Your task to perform on an android device: see creations saved in the google photos Image 0: 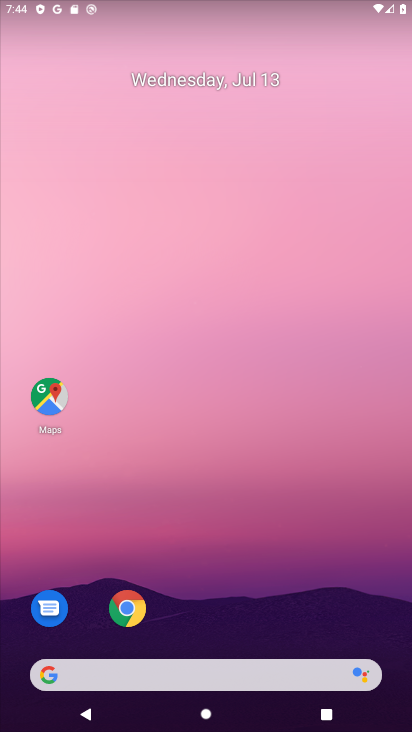
Step 0: drag from (309, 711) to (234, 201)
Your task to perform on an android device: see creations saved in the google photos Image 1: 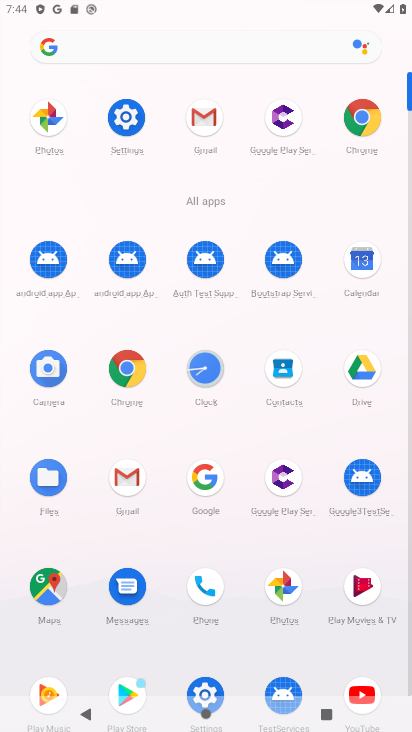
Step 1: click (273, 585)
Your task to perform on an android device: see creations saved in the google photos Image 2: 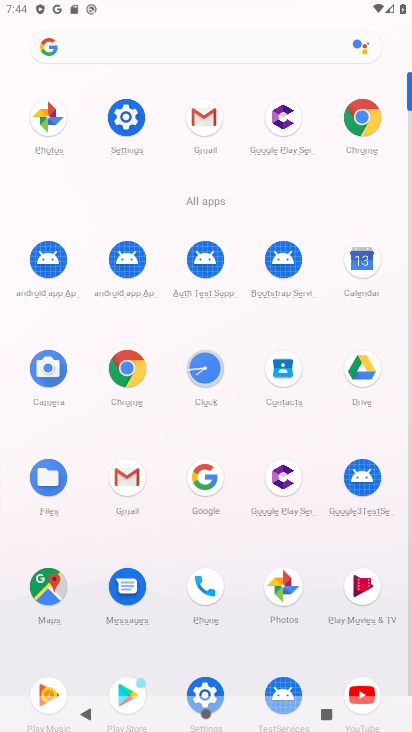
Step 2: click (273, 585)
Your task to perform on an android device: see creations saved in the google photos Image 3: 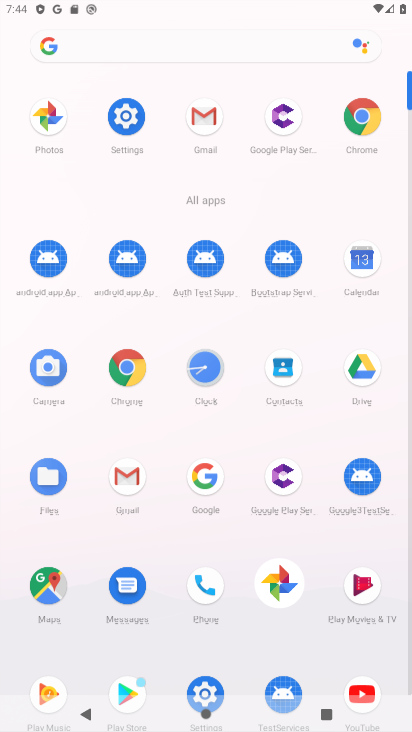
Step 3: click (275, 585)
Your task to perform on an android device: see creations saved in the google photos Image 4: 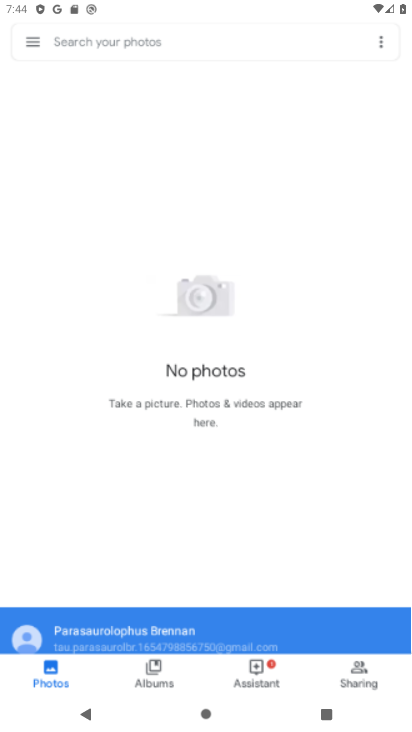
Step 4: click (277, 584)
Your task to perform on an android device: see creations saved in the google photos Image 5: 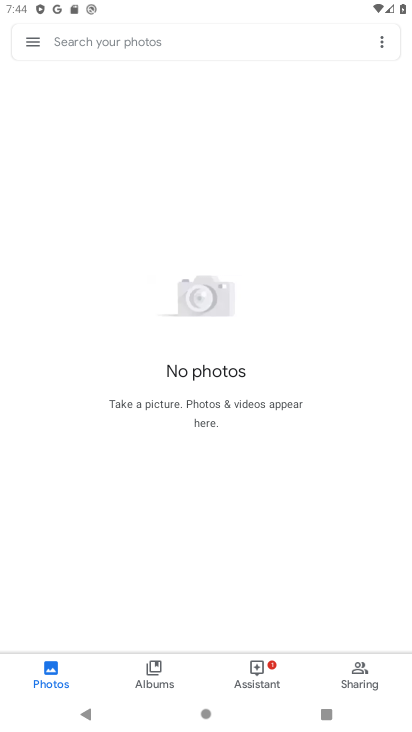
Step 5: task complete